Your task to perform on an android device: add a contact in the contacts app Image 0: 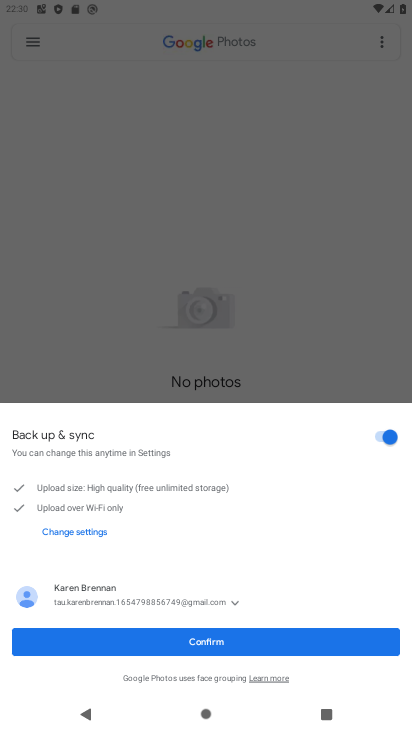
Step 0: press home button
Your task to perform on an android device: add a contact in the contacts app Image 1: 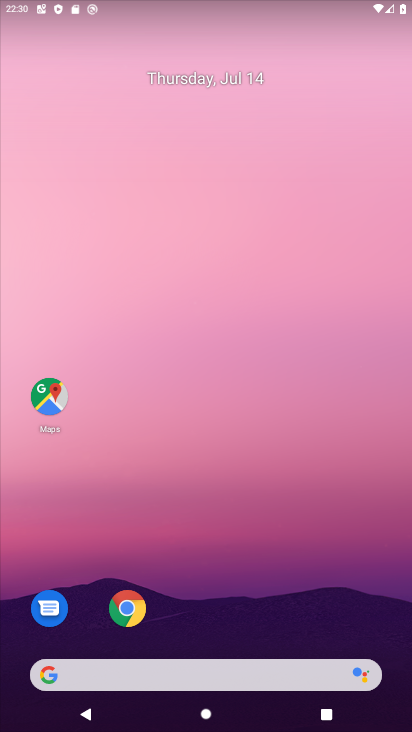
Step 1: drag from (195, 540) to (223, 72)
Your task to perform on an android device: add a contact in the contacts app Image 2: 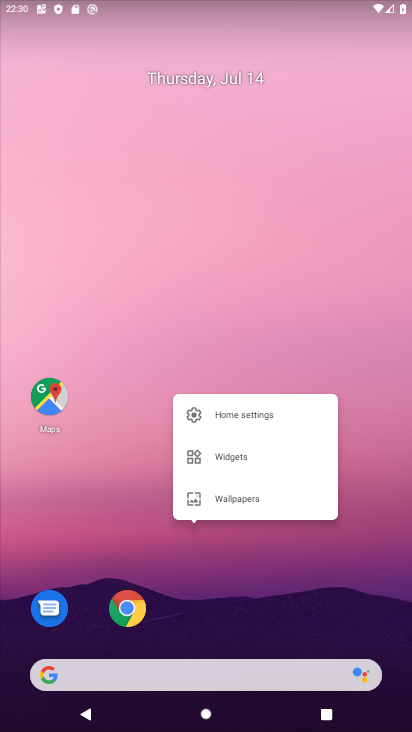
Step 2: click (238, 574)
Your task to perform on an android device: add a contact in the contacts app Image 3: 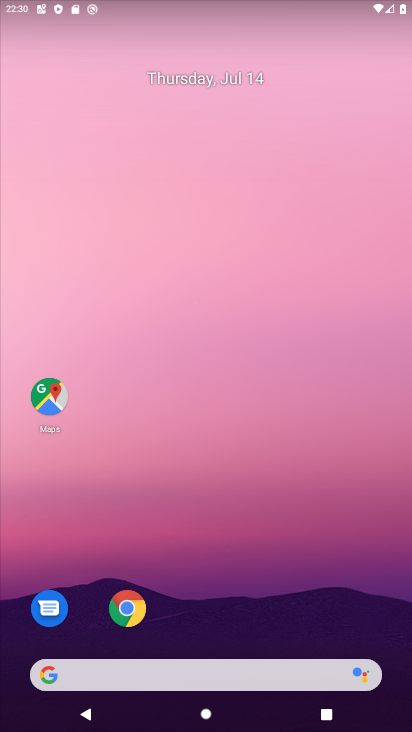
Step 3: drag from (176, 462) to (156, 242)
Your task to perform on an android device: add a contact in the contacts app Image 4: 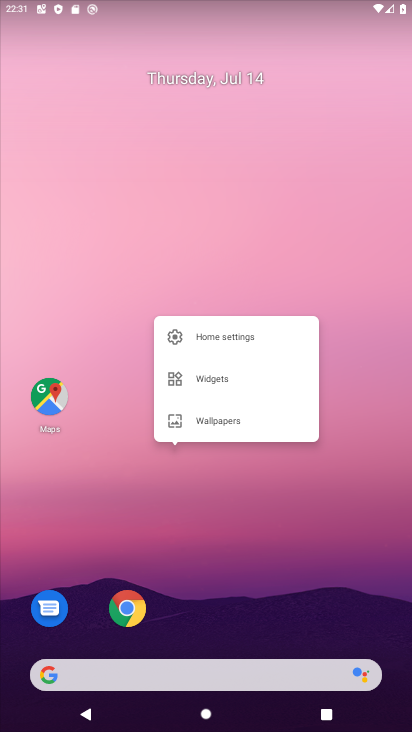
Step 4: click (234, 609)
Your task to perform on an android device: add a contact in the contacts app Image 5: 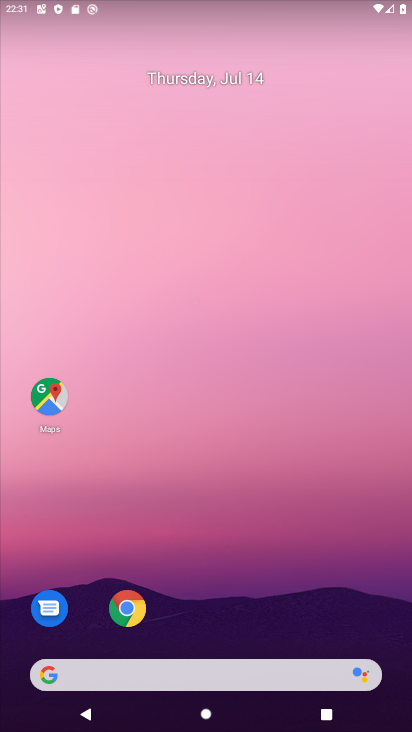
Step 5: click (234, 609)
Your task to perform on an android device: add a contact in the contacts app Image 6: 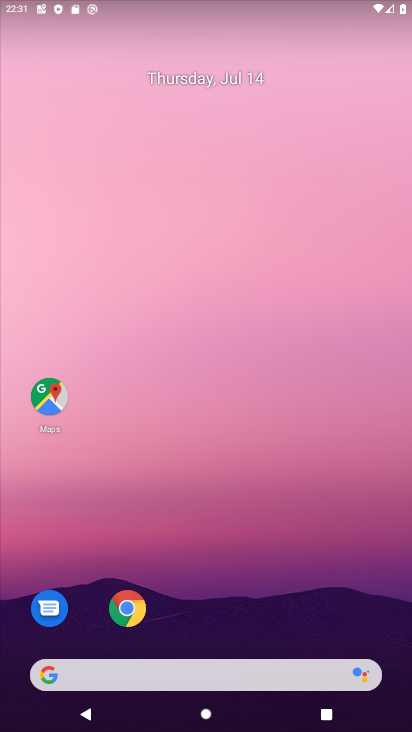
Step 6: drag from (234, 548) to (174, 88)
Your task to perform on an android device: add a contact in the contacts app Image 7: 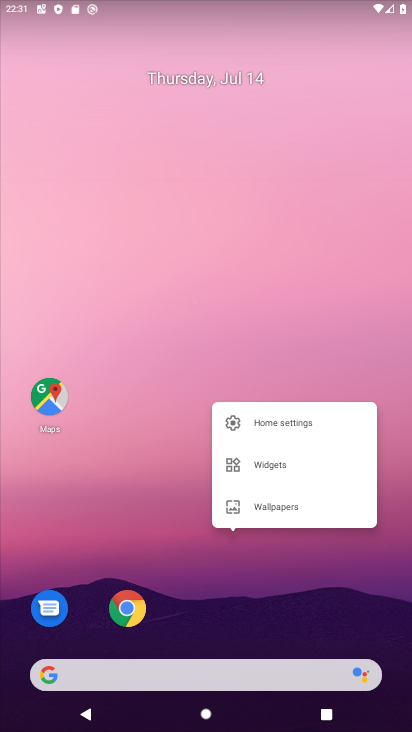
Step 7: click (256, 566)
Your task to perform on an android device: add a contact in the contacts app Image 8: 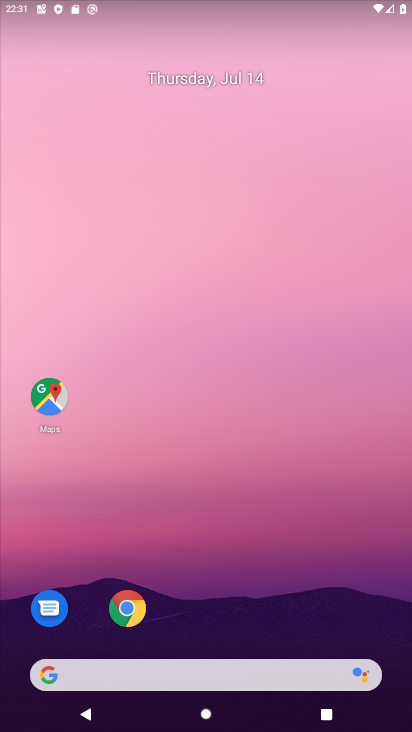
Step 8: drag from (192, 606) to (232, 27)
Your task to perform on an android device: add a contact in the contacts app Image 9: 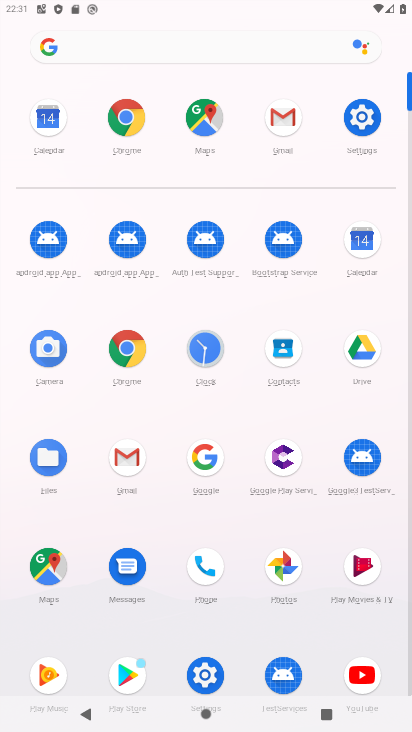
Step 9: click (280, 350)
Your task to perform on an android device: add a contact in the contacts app Image 10: 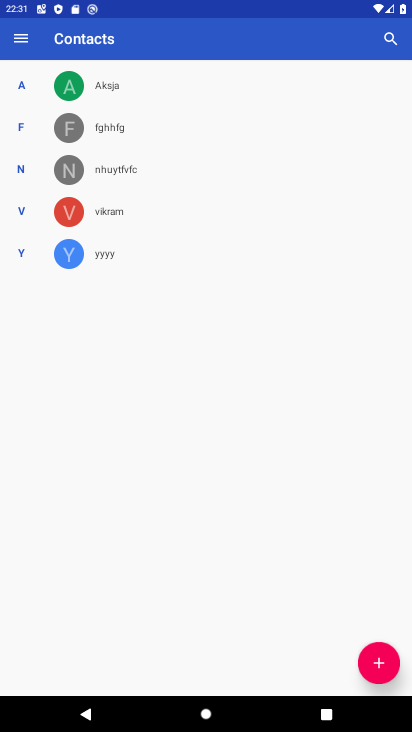
Step 10: click (388, 669)
Your task to perform on an android device: add a contact in the contacts app Image 11: 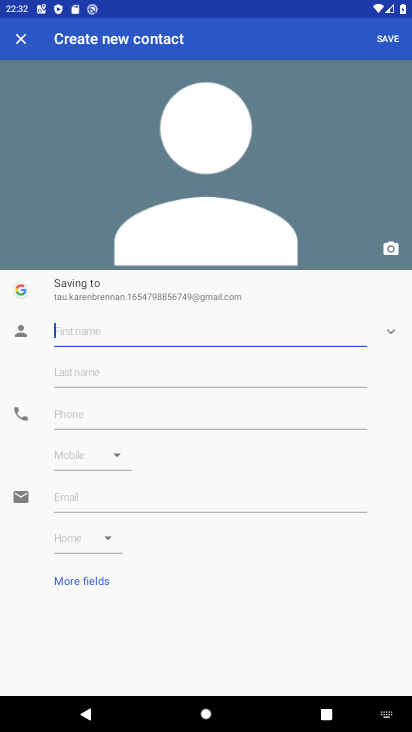
Step 11: type "Narender"
Your task to perform on an android device: add a contact in the contacts app Image 12: 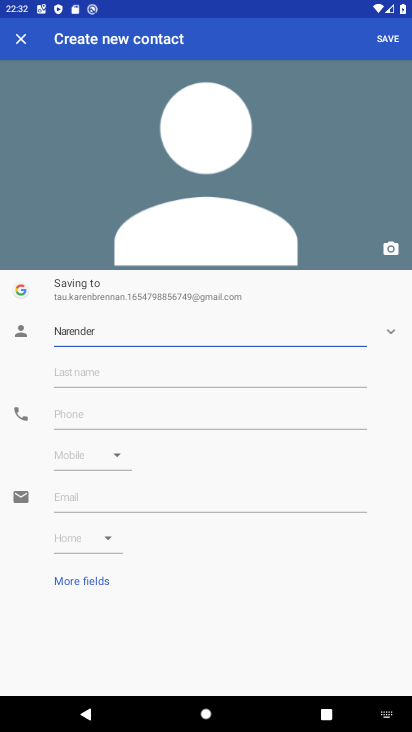
Step 12: click (124, 386)
Your task to perform on an android device: add a contact in the contacts app Image 13: 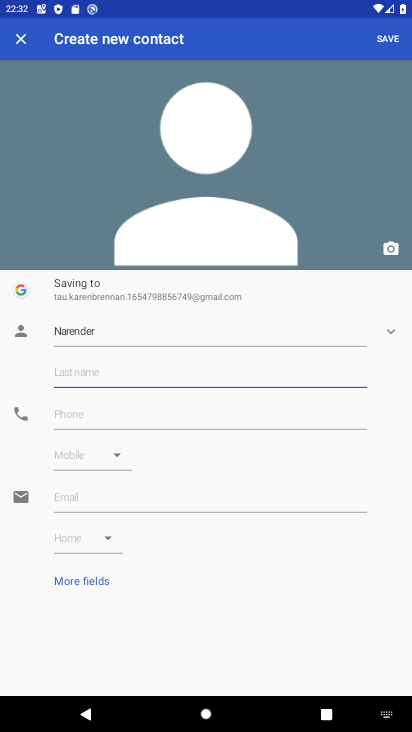
Step 13: type "Swami"
Your task to perform on an android device: add a contact in the contacts app Image 14: 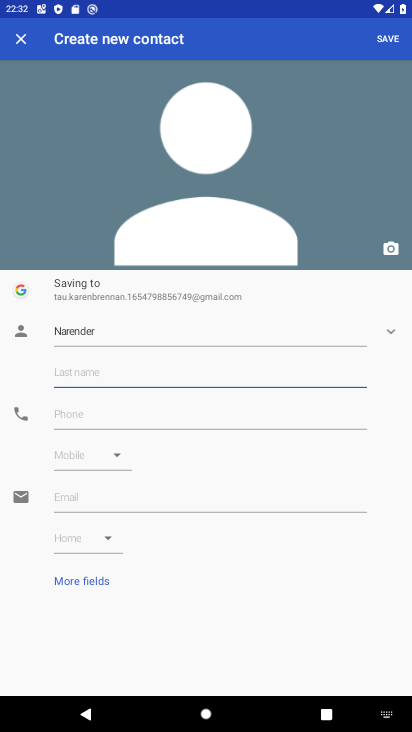
Step 14: click (72, 432)
Your task to perform on an android device: add a contact in the contacts app Image 15: 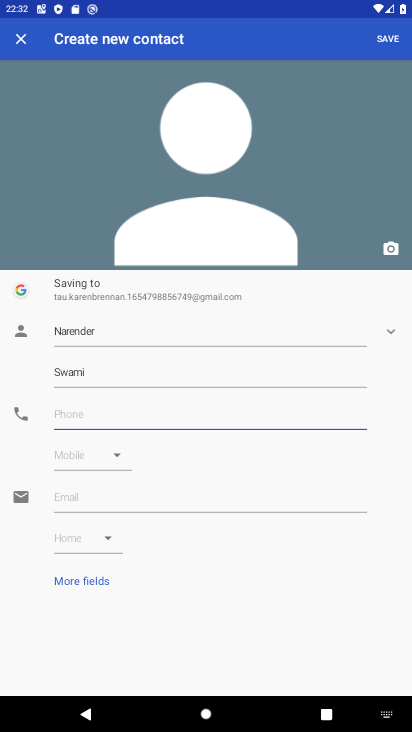
Step 15: click (77, 418)
Your task to perform on an android device: add a contact in the contacts app Image 16: 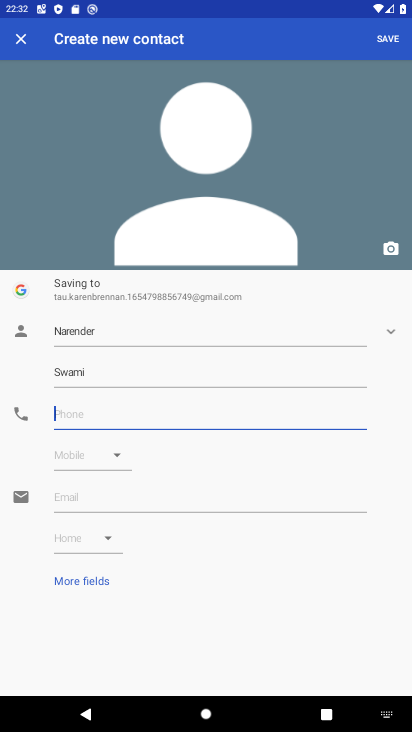
Step 16: type "7566448644"
Your task to perform on an android device: add a contact in the contacts app Image 17: 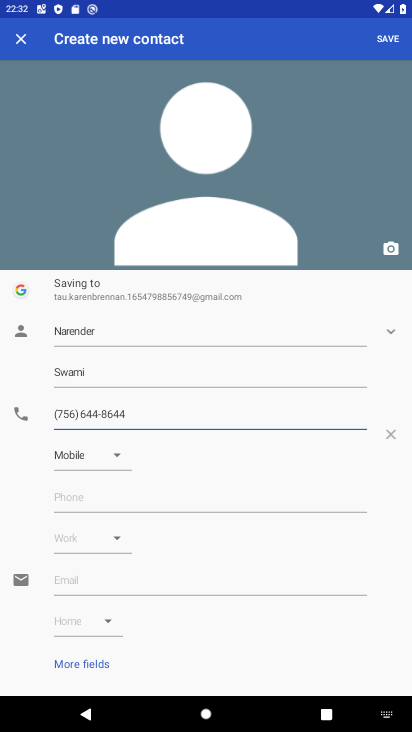
Step 17: click (387, 36)
Your task to perform on an android device: add a contact in the contacts app Image 18: 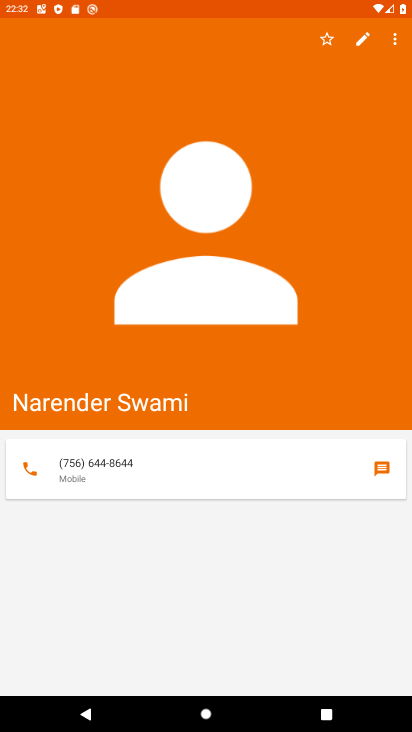
Step 18: task complete